Your task to perform on an android device: change your default location settings in chrome Image 0: 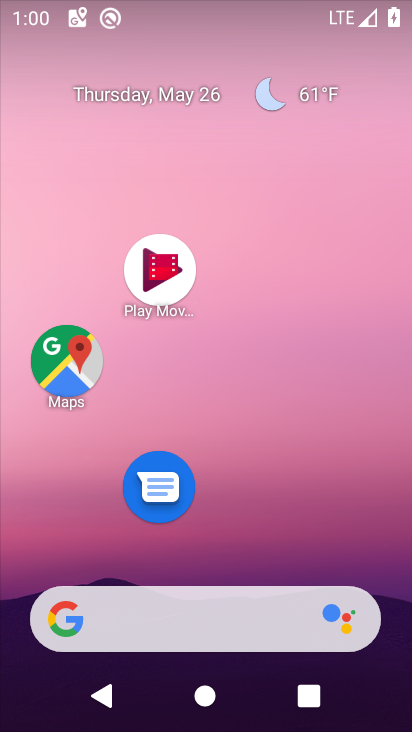
Step 0: drag from (261, 627) to (226, 112)
Your task to perform on an android device: change your default location settings in chrome Image 1: 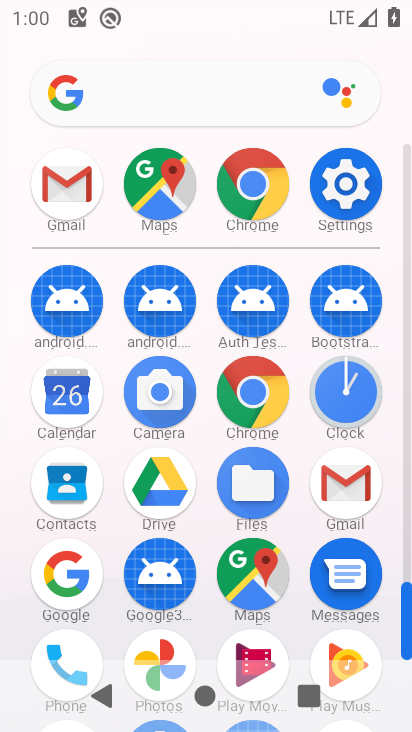
Step 1: click (226, 188)
Your task to perform on an android device: change your default location settings in chrome Image 2: 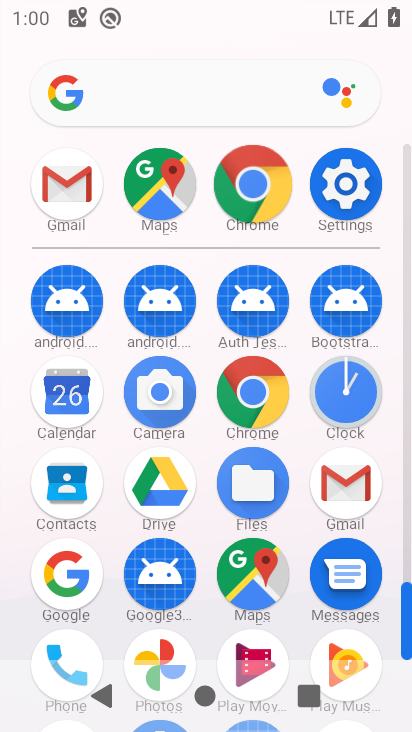
Step 2: click (236, 186)
Your task to perform on an android device: change your default location settings in chrome Image 3: 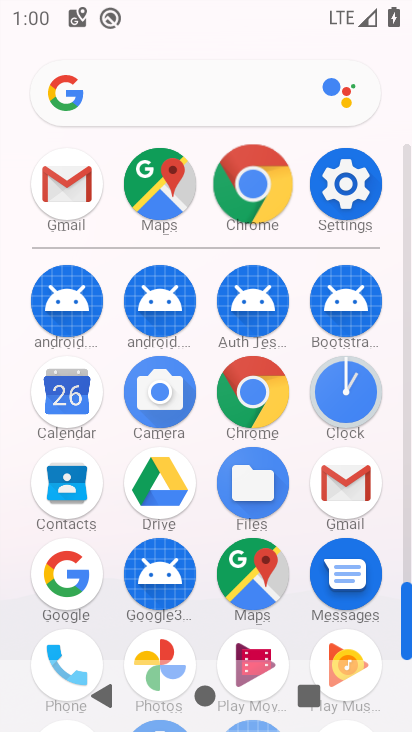
Step 3: click (238, 188)
Your task to perform on an android device: change your default location settings in chrome Image 4: 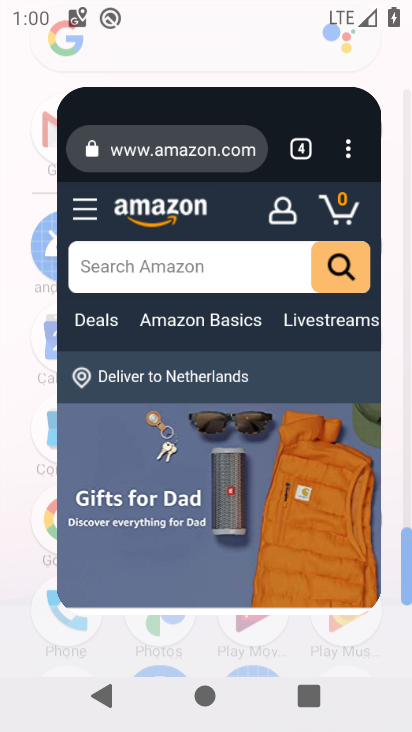
Step 4: click (238, 188)
Your task to perform on an android device: change your default location settings in chrome Image 5: 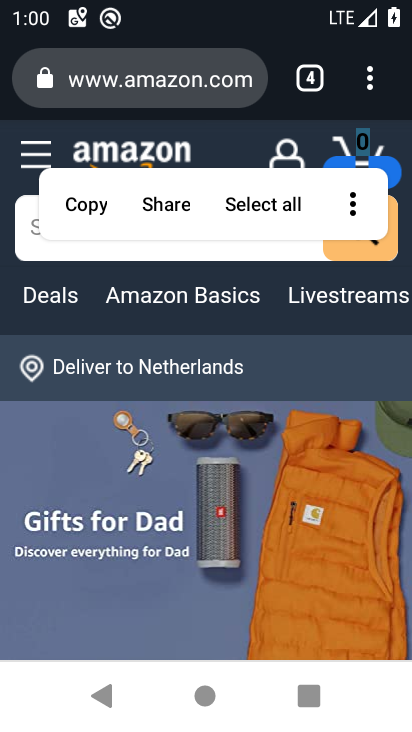
Step 5: drag from (365, 79) to (91, 544)
Your task to perform on an android device: change your default location settings in chrome Image 6: 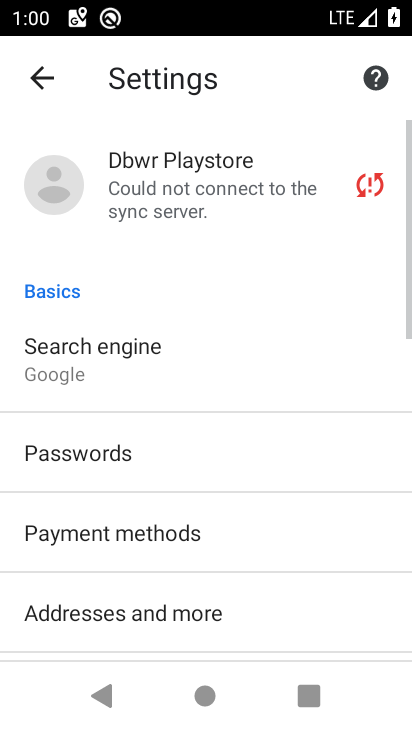
Step 6: drag from (114, 572) to (78, 172)
Your task to perform on an android device: change your default location settings in chrome Image 7: 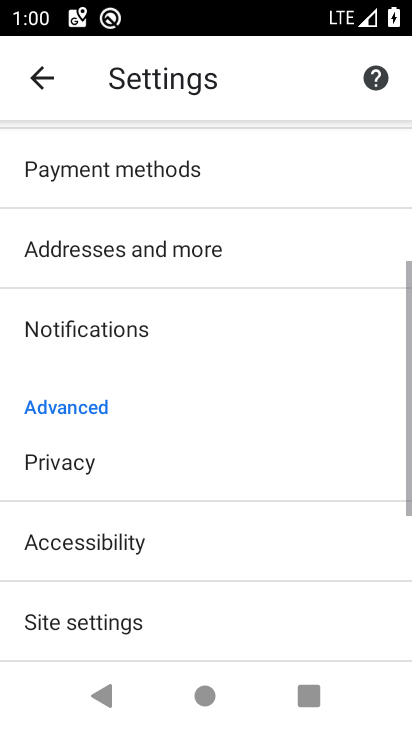
Step 7: drag from (149, 489) to (112, 109)
Your task to perform on an android device: change your default location settings in chrome Image 8: 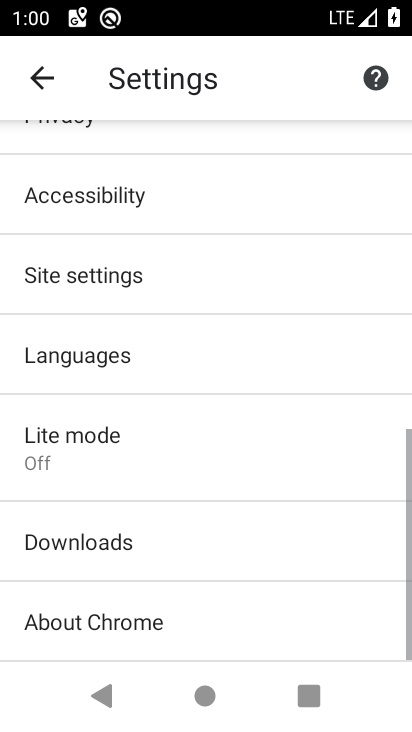
Step 8: drag from (106, 493) to (96, 158)
Your task to perform on an android device: change your default location settings in chrome Image 9: 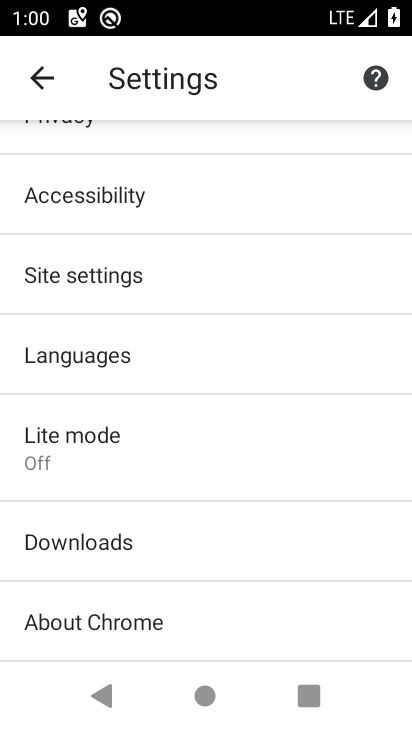
Step 9: click (68, 282)
Your task to perform on an android device: change your default location settings in chrome Image 10: 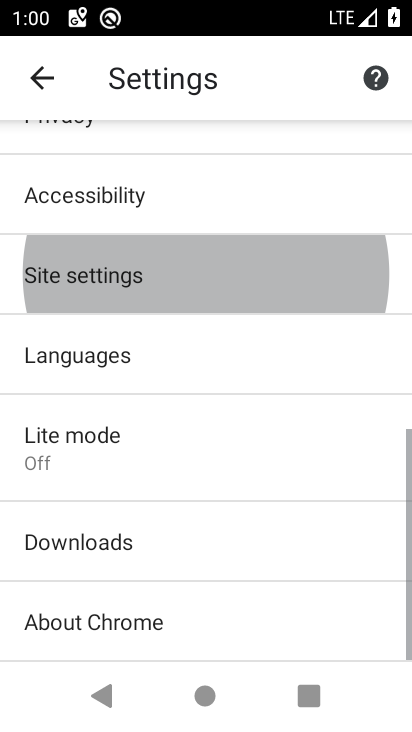
Step 10: click (68, 282)
Your task to perform on an android device: change your default location settings in chrome Image 11: 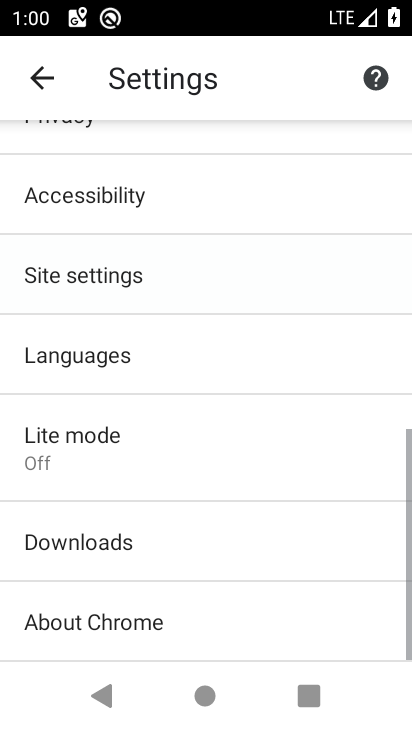
Step 11: click (68, 282)
Your task to perform on an android device: change your default location settings in chrome Image 12: 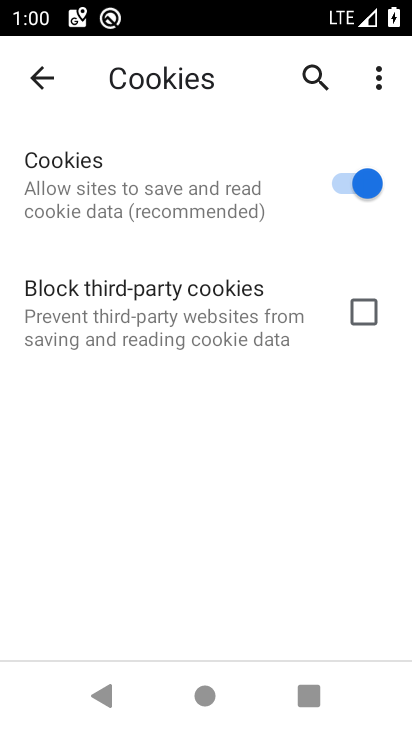
Step 12: click (41, 80)
Your task to perform on an android device: change your default location settings in chrome Image 13: 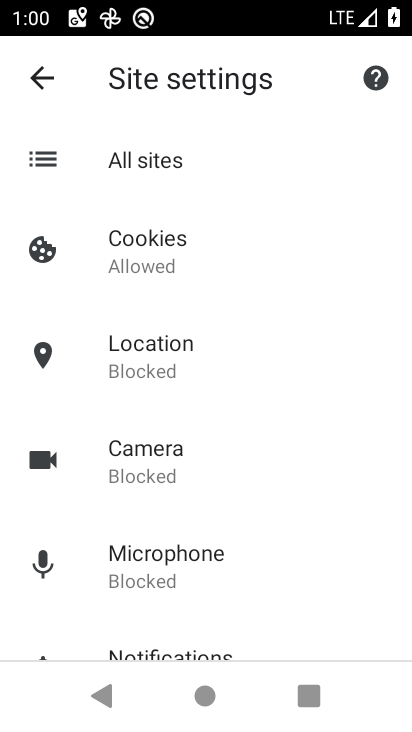
Step 13: drag from (186, 615) to (136, 234)
Your task to perform on an android device: change your default location settings in chrome Image 14: 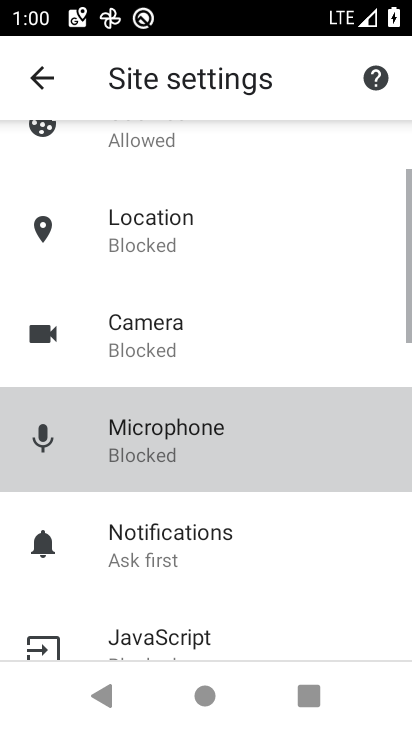
Step 14: drag from (186, 567) to (174, 258)
Your task to perform on an android device: change your default location settings in chrome Image 15: 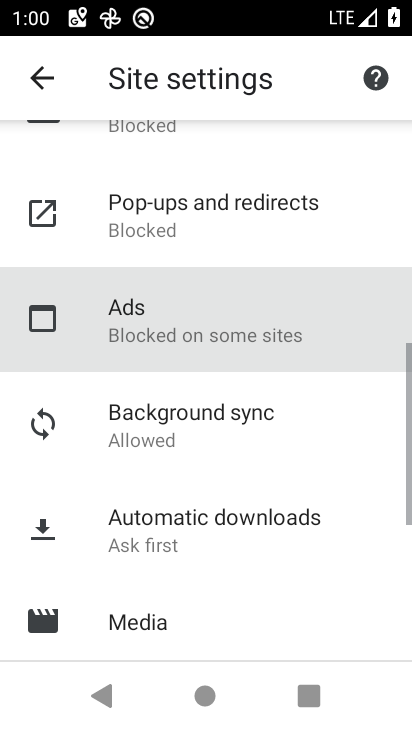
Step 15: drag from (160, 514) to (120, 207)
Your task to perform on an android device: change your default location settings in chrome Image 16: 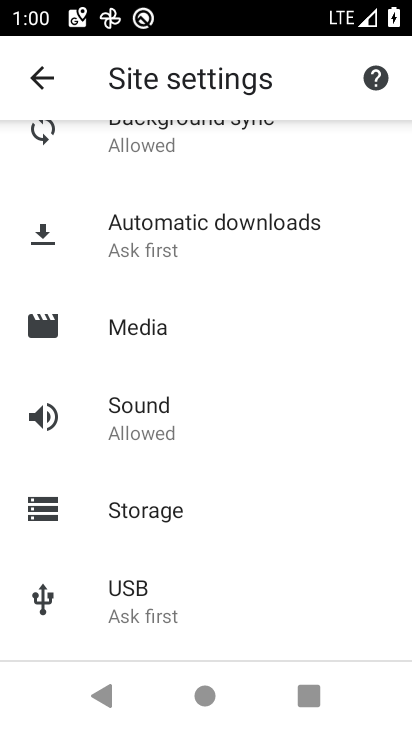
Step 16: drag from (190, 542) to (155, 279)
Your task to perform on an android device: change your default location settings in chrome Image 17: 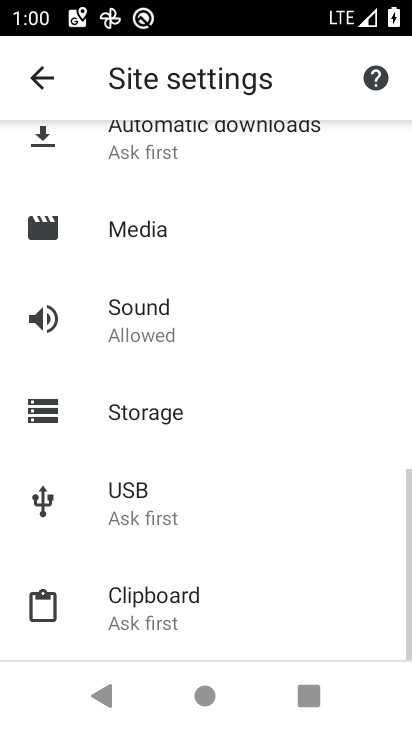
Step 17: drag from (175, 421) to (175, 248)
Your task to perform on an android device: change your default location settings in chrome Image 18: 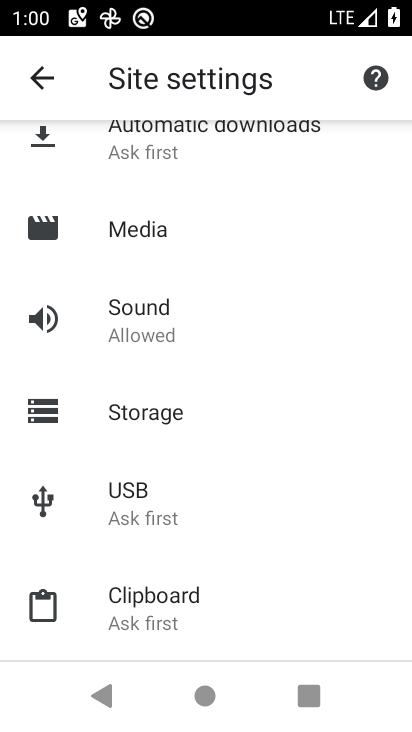
Step 18: drag from (149, 231) to (149, 608)
Your task to perform on an android device: change your default location settings in chrome Image 19: 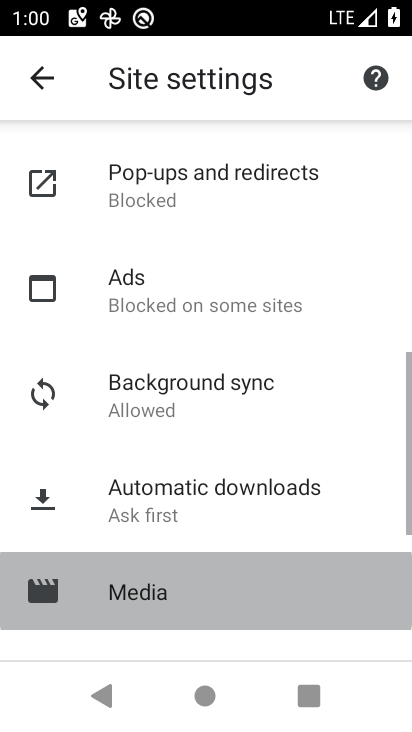
Step 19: drag from (117, 320) to (133, 617)
Your task to perform on an android device: change your default location settings in chrome Image 20: 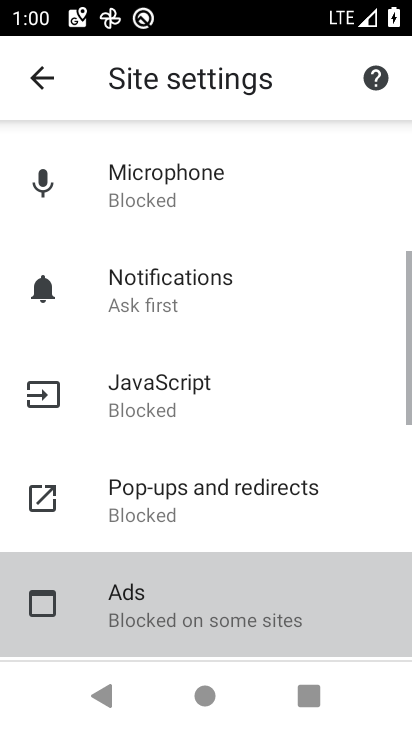
Step 20: drag from (94, 298) to (108, 529)
Your task to perform on an android device: change your default location settings in chrome Image 21: 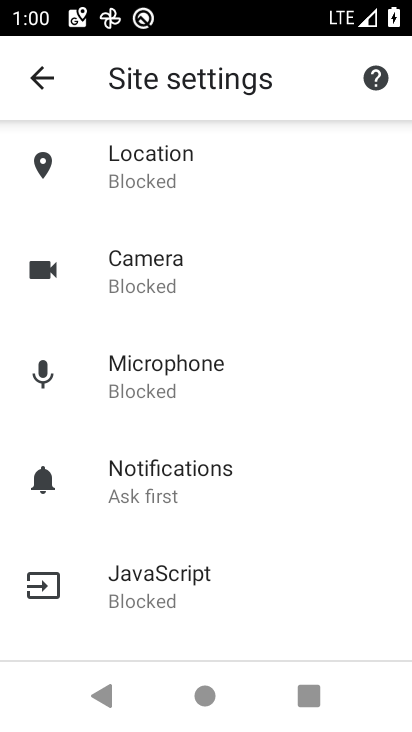
Step 21: click (132, 172)
Your task to perform on an android device: change your default location settings in chrome Image 22: 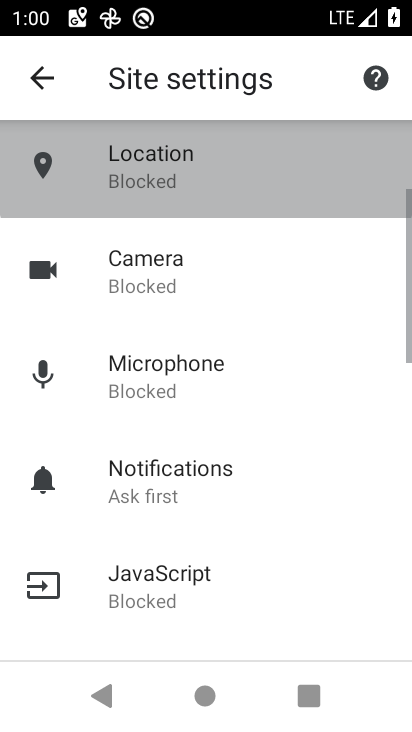
Step 22: click (128, 185)
Your task to perform on an android device: change your default location settings in chrome Image 23: 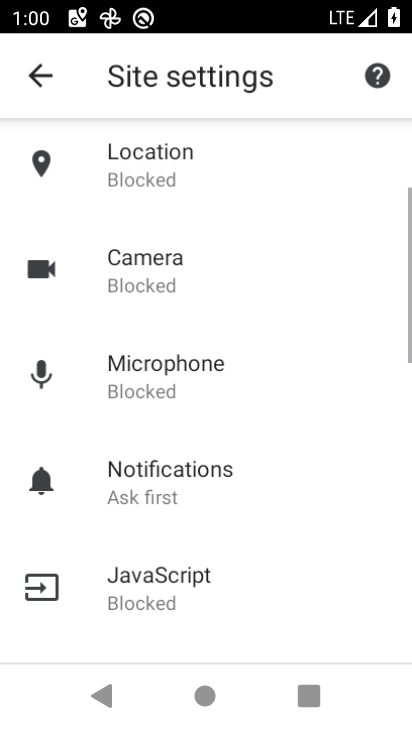
Step 23: click (128, 185)
Your task to perform on an android device: change your default location settings in chrome Image 24: 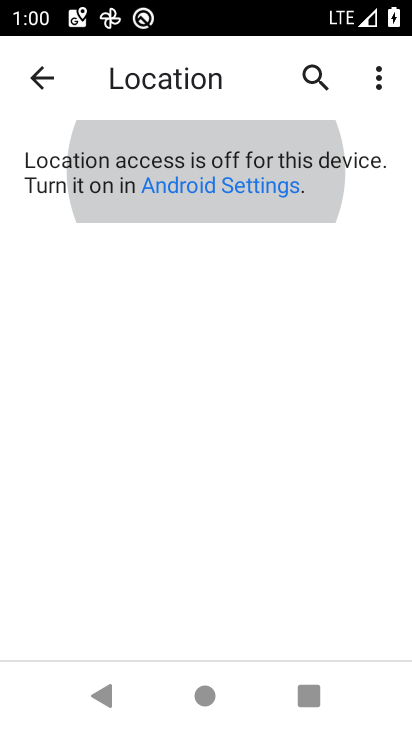
Step 24: click (128, 185)
Your task to perform on an android device: change your default location settings in chrome Image 25: 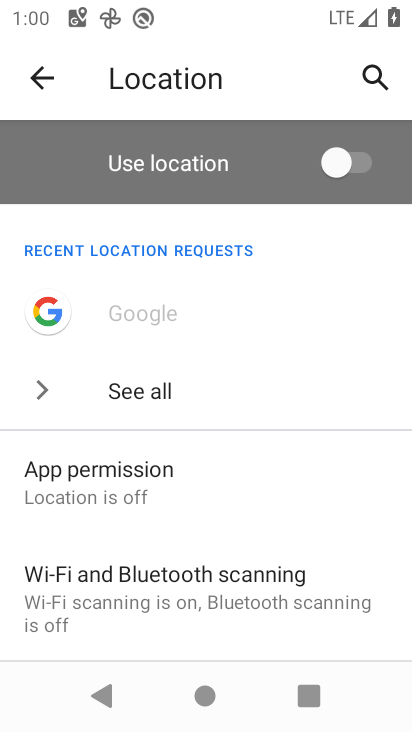
Step 25: click (343, 160)
Your task to perform on an android device: change your default location settings in chrome Image 26: 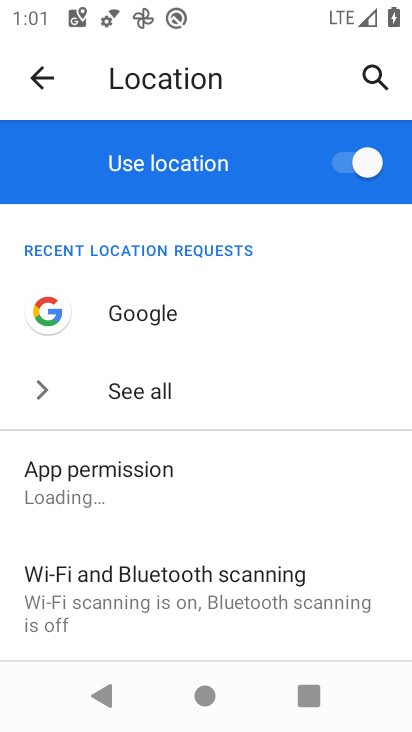
Step 26: task complete